Your task to perform on an android device: Search for seafood restaurants on Google Maps Image 0: 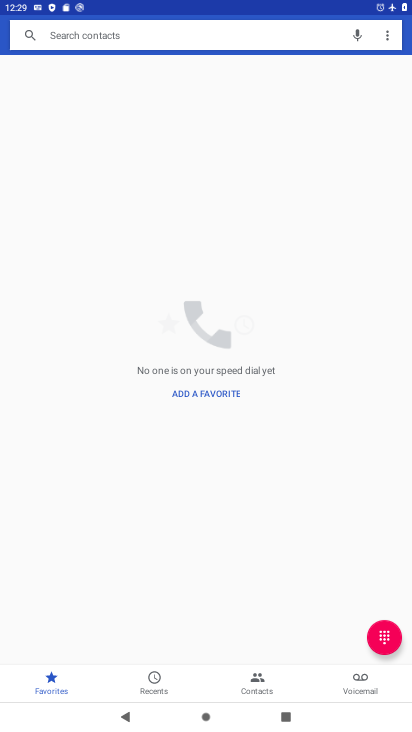
Step 0: press home button
Your task to perform on an android device: Search for seafood restaurants on Google Maps Image 1: 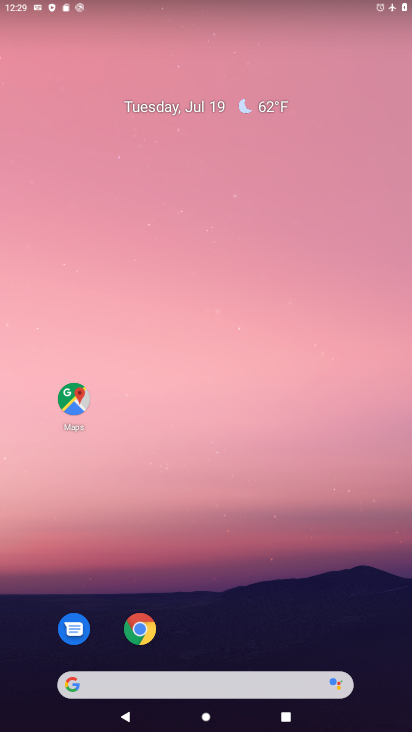
Step 1: drag from (189, 654) to (186, 92)
Your task to perform on an android device: Search for seafood restaurants on Google Maps Image 2: 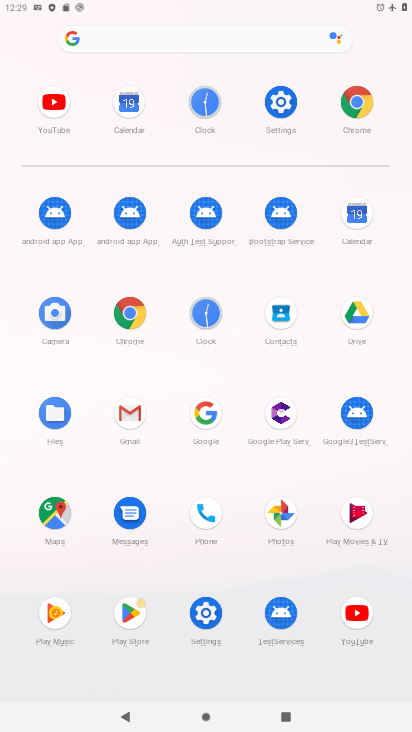
Step 2: click (64, 522)
Your task to perform on an android device: Search for seafood restaurants on Google Maps Image 3: 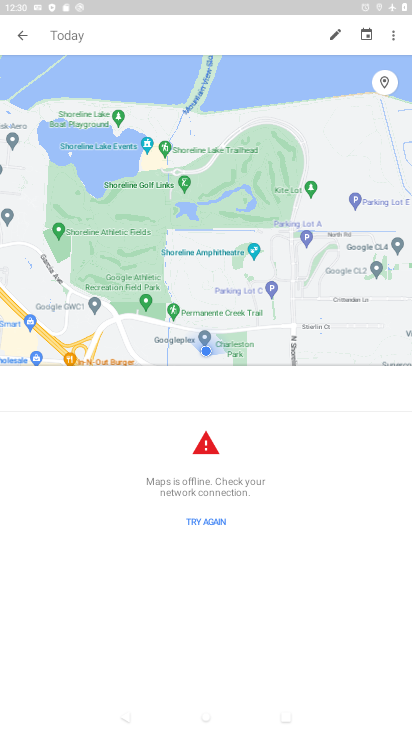
Step 3: click (27, 39)
Your task to perform on an android device: Search for seafood restaurants on Google Maps Image 4: 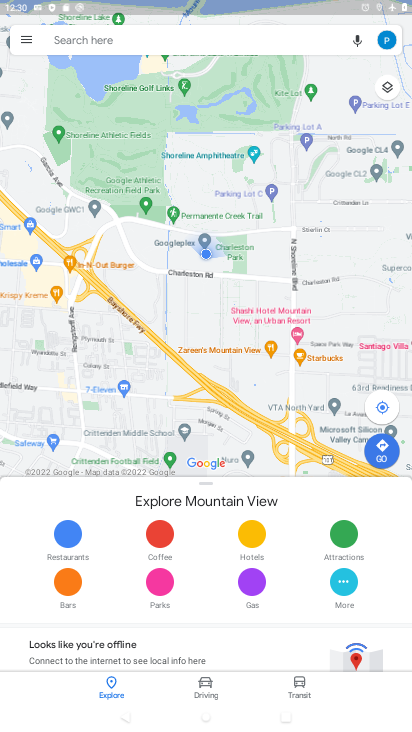
Step 4: click (125, 51)
Your task to perform on an android device: Search for seafood restaurants on Google Maps Image 5: 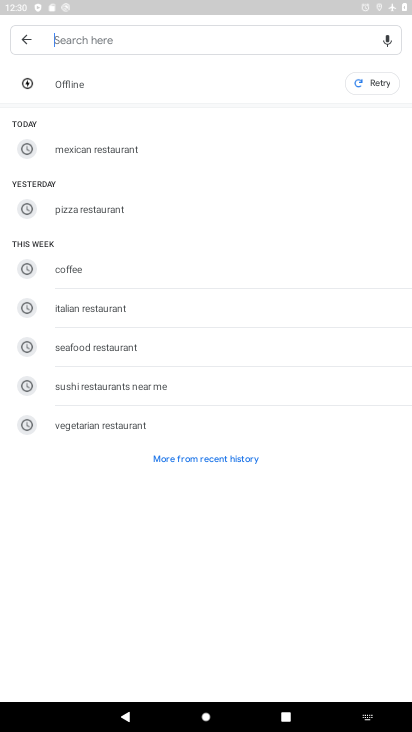
Step 5: type "seafood restaurants"
Your task to perform on an android device: Search for seafood restaurants on Google Maps Image 6: 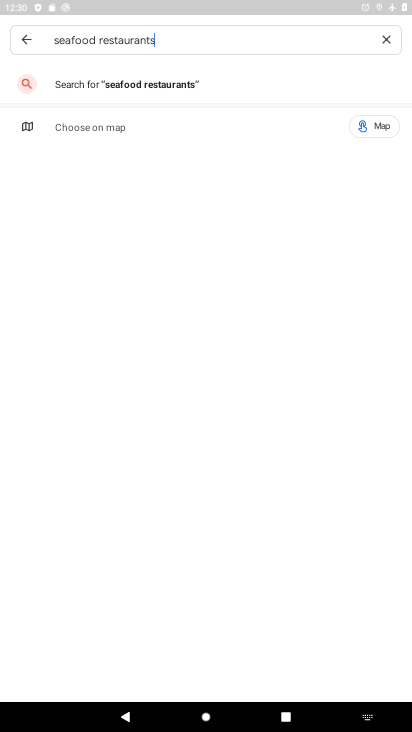
Step 6: type ""
Your task to perform on an android device: Search for seafood restaurants on Google Maps Image 7: 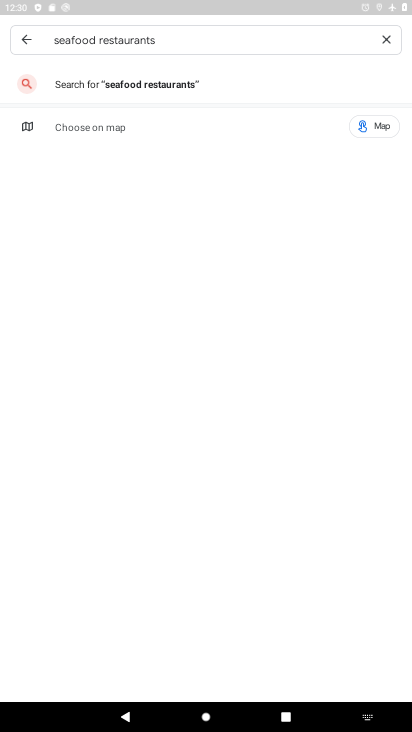
Step 7: task complete